Your task to perform on an android device: What's on my calendar tomorrow? Image 0: 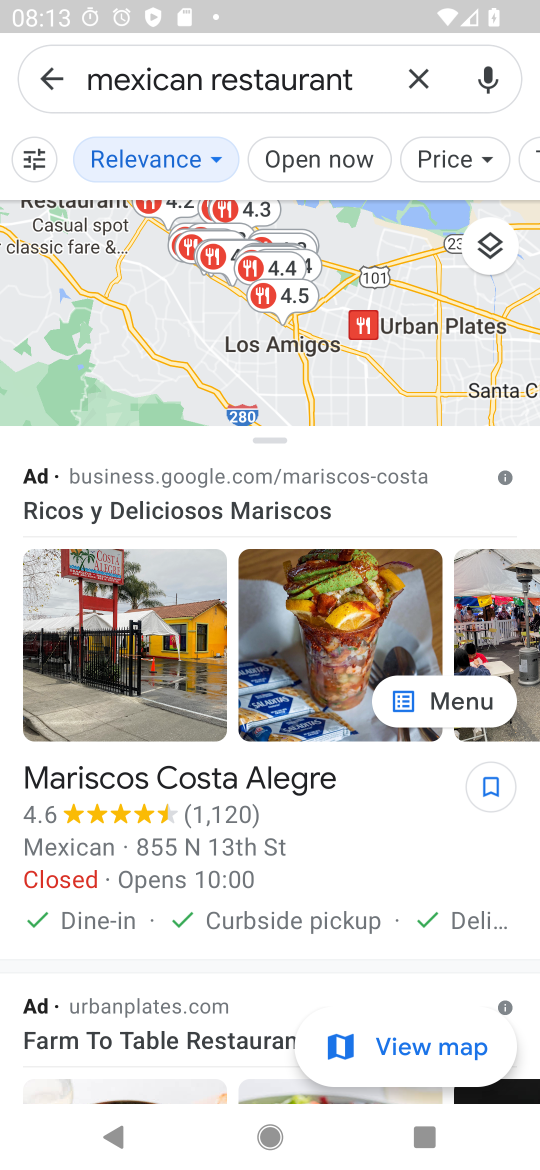
Step 0: press home button
Your task to perform on an android device: What's on my calendar tomorrow? Image 1: 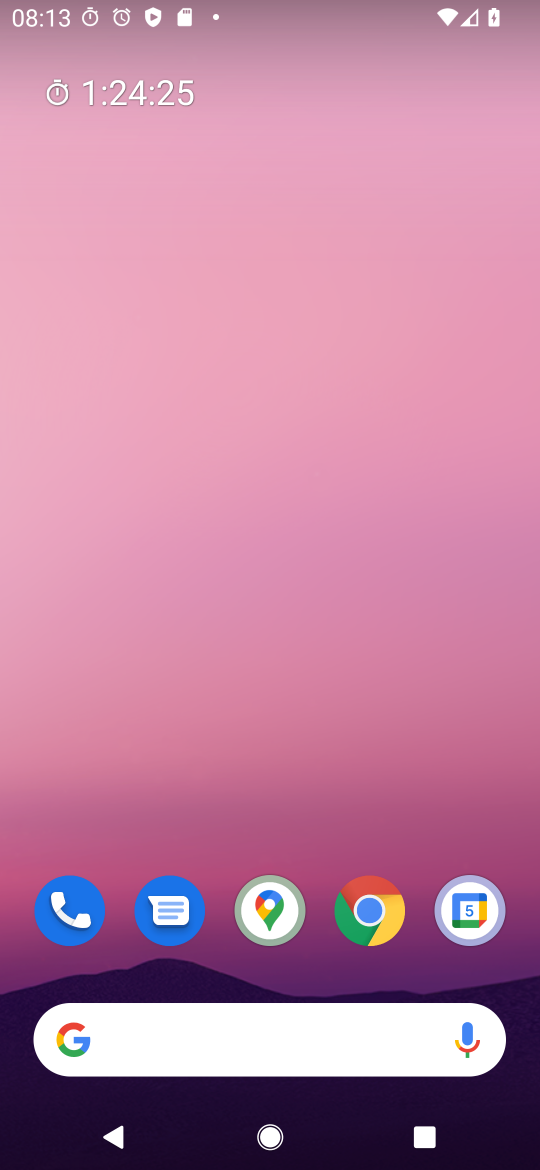
Step 1: drag from (315, 1025) to (302, 12)
Your task to perform on an android device: What's on my calendar tomorrow? Image 2: 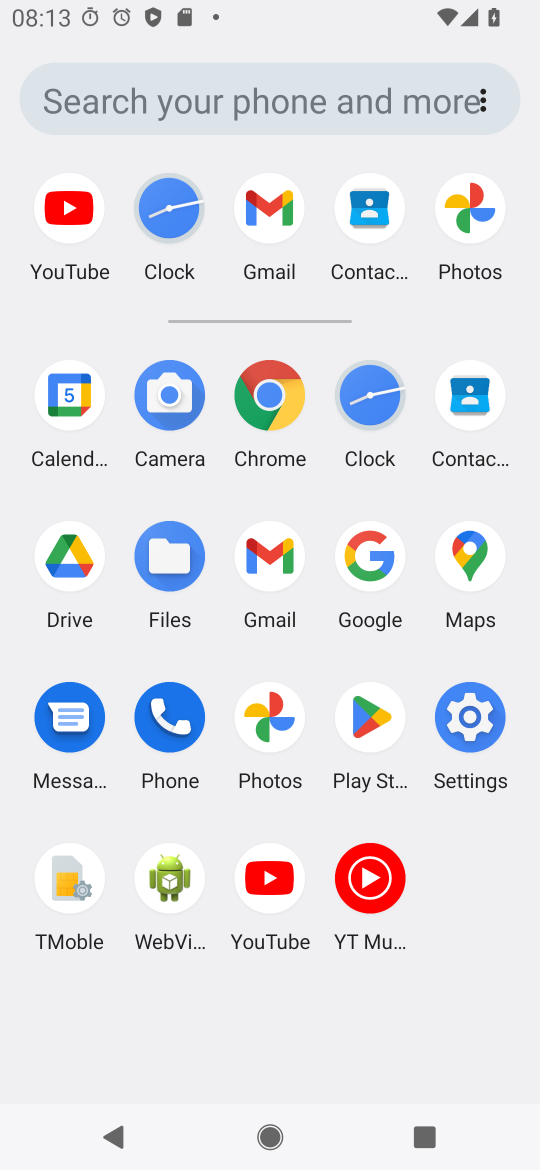
Step 2: click (72, 399)
Your task to perform on an android device: What's on my calendar tomorrow? Image 3: 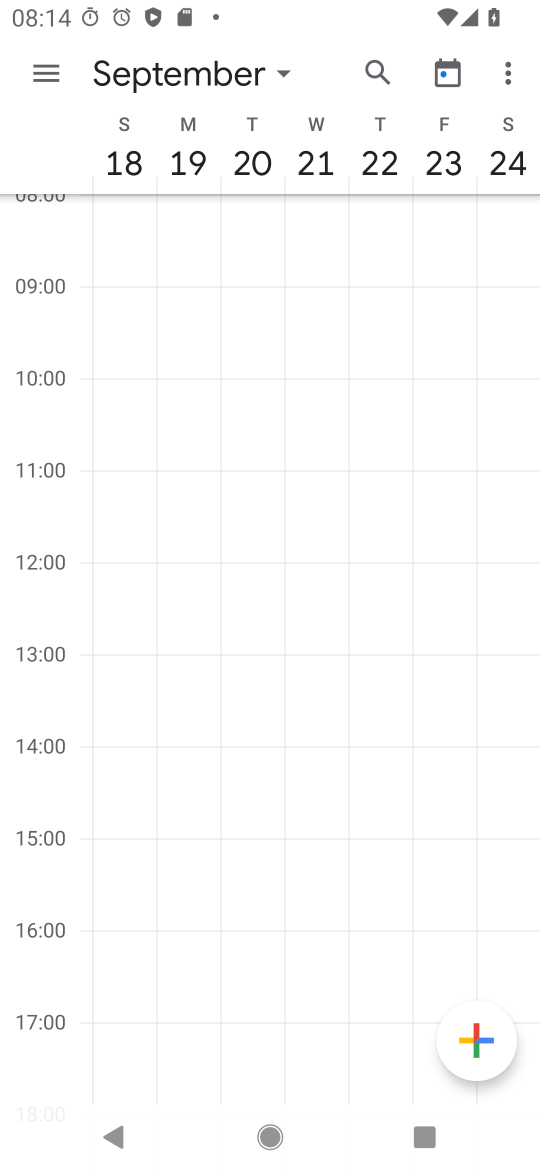
Step 3: click (283, 61)
Your task to perform on an android device: What's on my calendar tomorrow? Image 4: 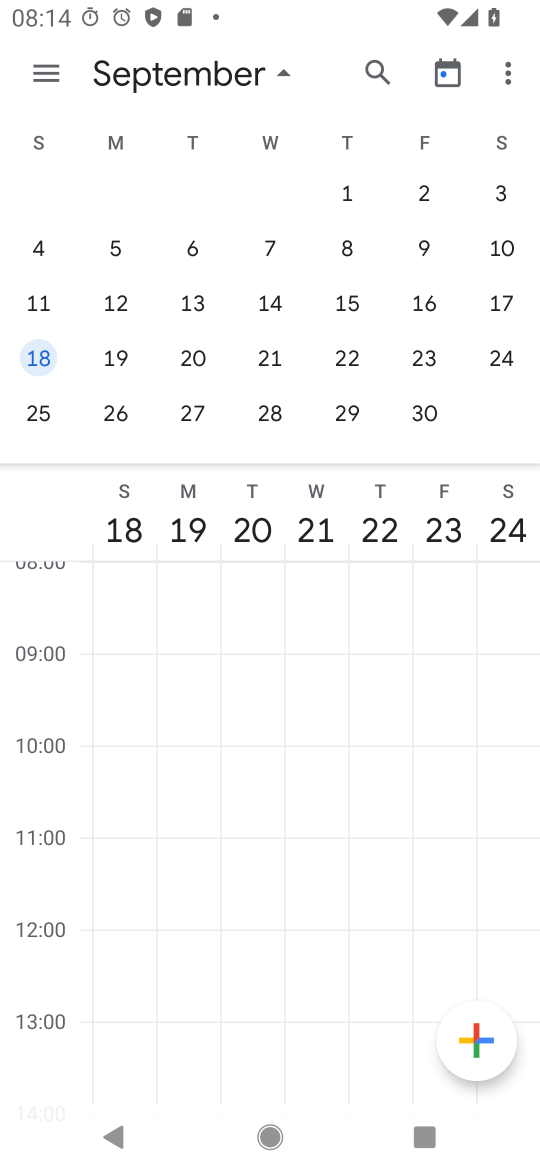
Step 4: drag from (126, 288) to (532, 312)
Your task to perform on an android device: What's on my calendar tomorrow? Image 5: 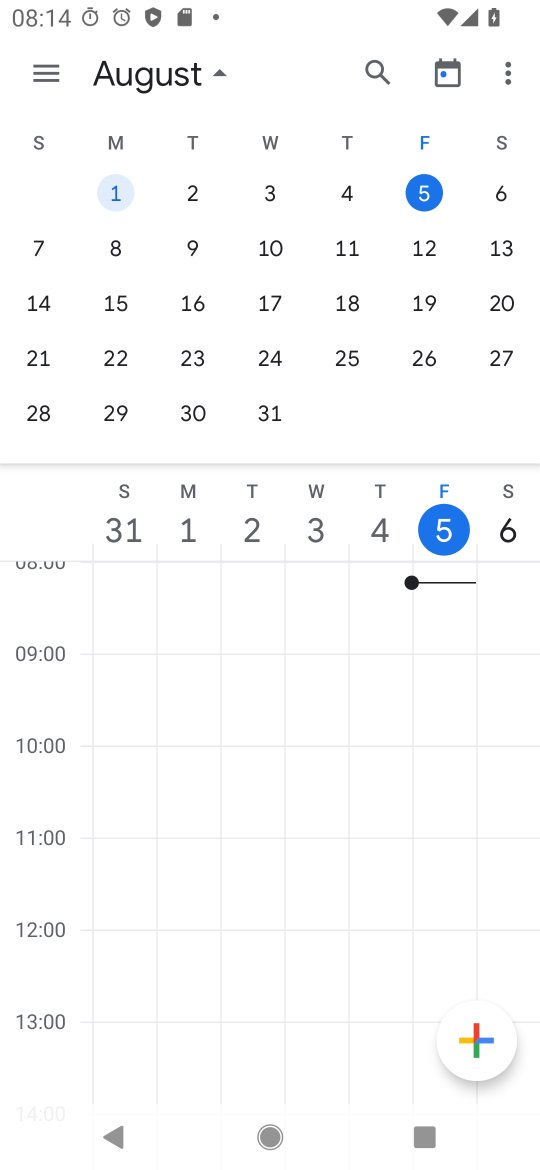
Step 5: click (506, 192)
Your task to perform on an android device: What's on my calendar tomorrow? Image 6: 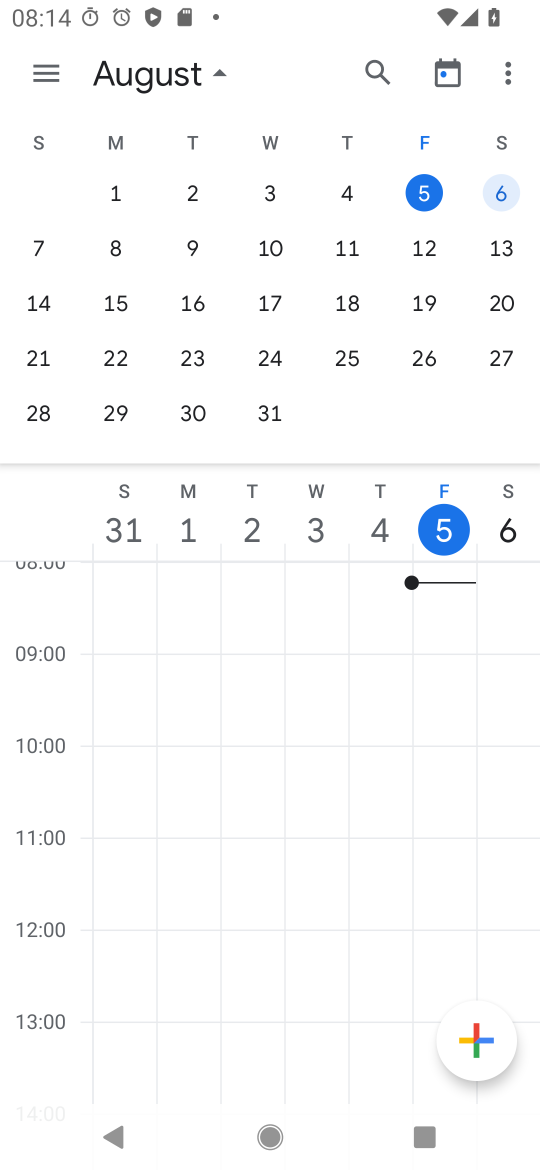
Step 6: task complete